Your task to perform on an android device: open app "Cash App" (install if not already installed) Image 0: 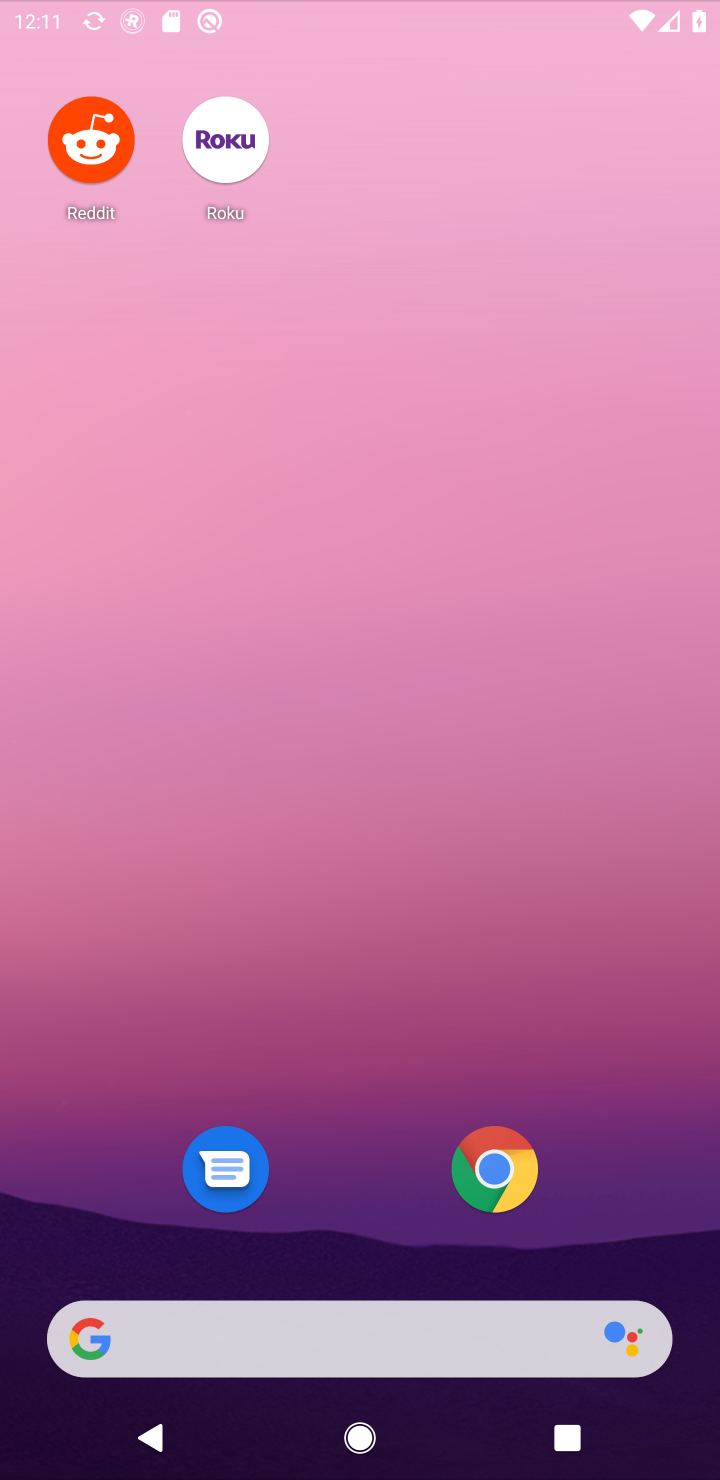
Step 0: press home button
Your task to perform on an android device: open app "Cash App" (install if not already installed) Image 1: 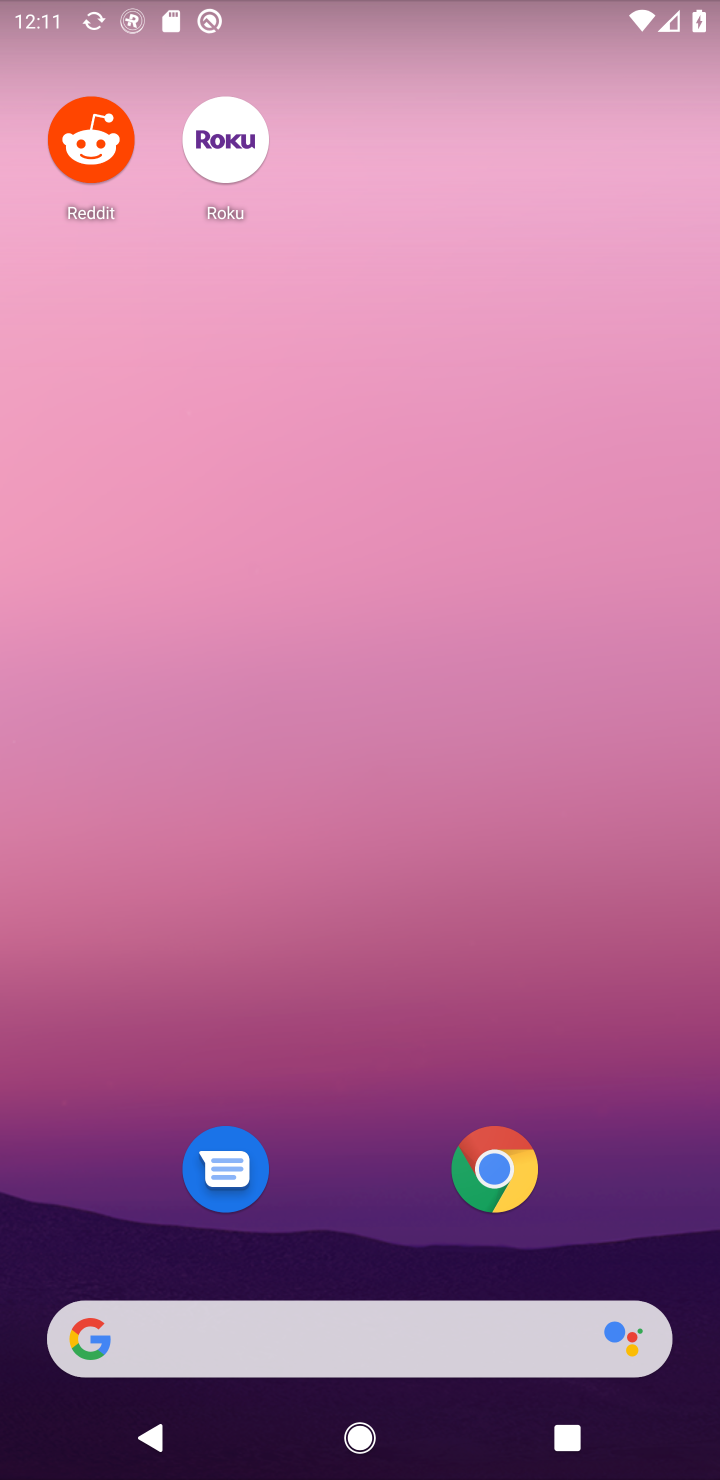
Step 1: drag from (618, 1188) to (666, 115)
Your task to perform on an android device: open app "Cash App" (install if not already installed) Image 2: 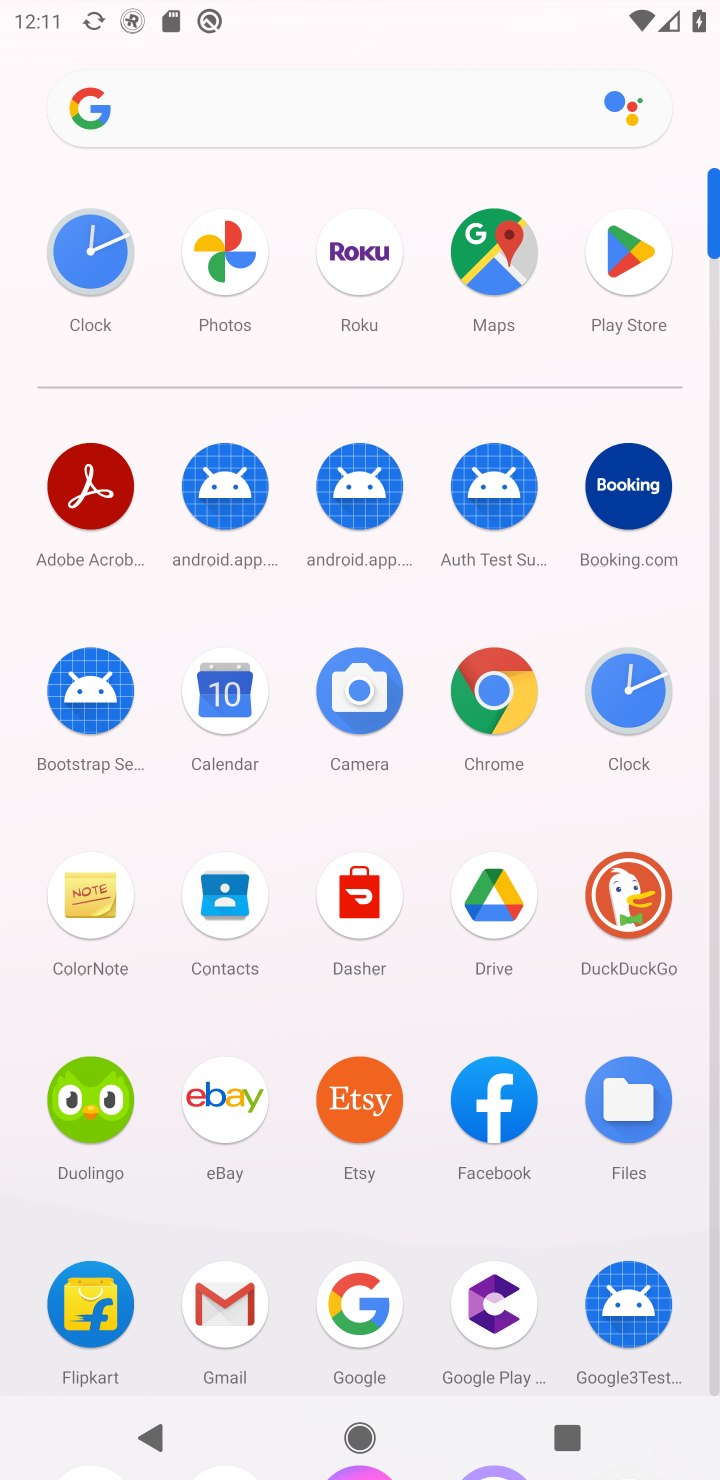
Step 2: click (625, 255)
Your task to perform on an android device: open app "Cash App" (install if not already installed) Image 3: 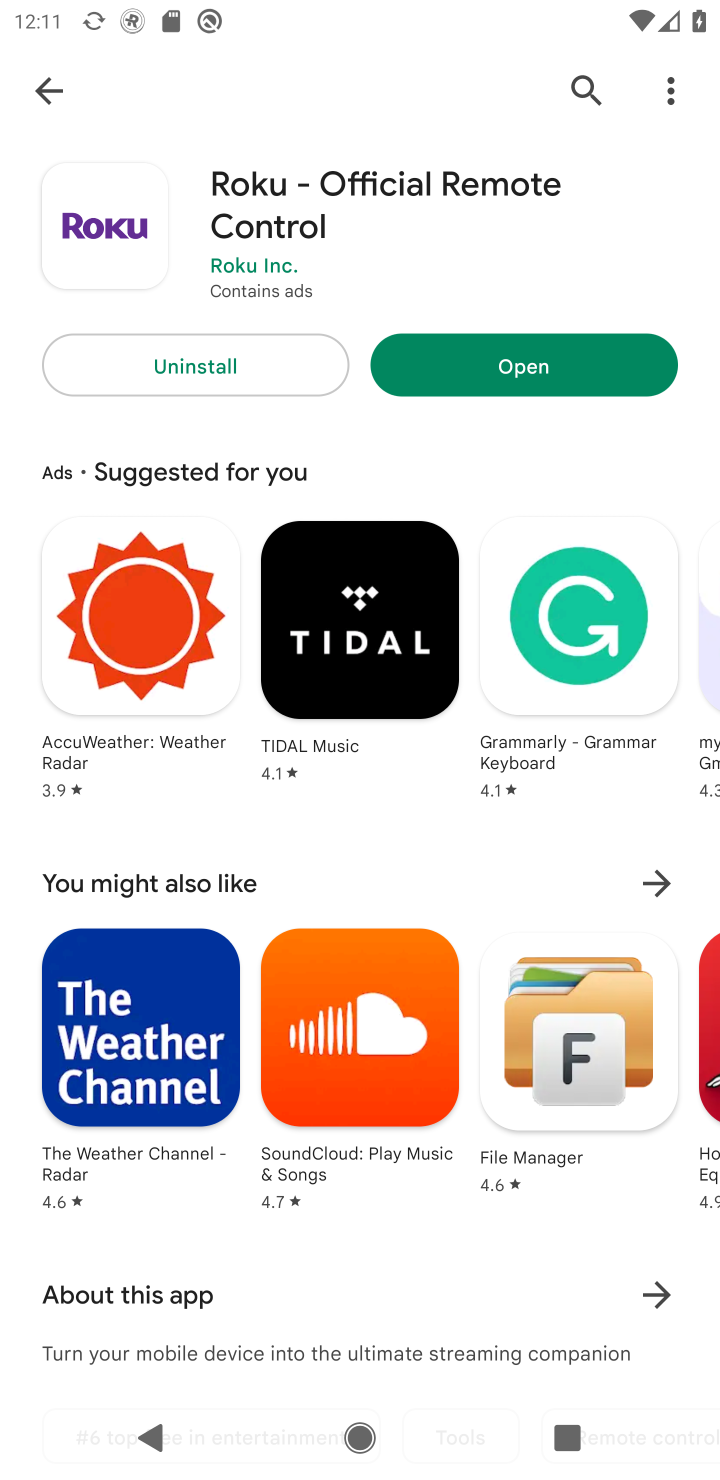
Step 3: click (582, 76)
Your task to perform on an android device: open app "Cash App" (install if not already installed) Image 4: 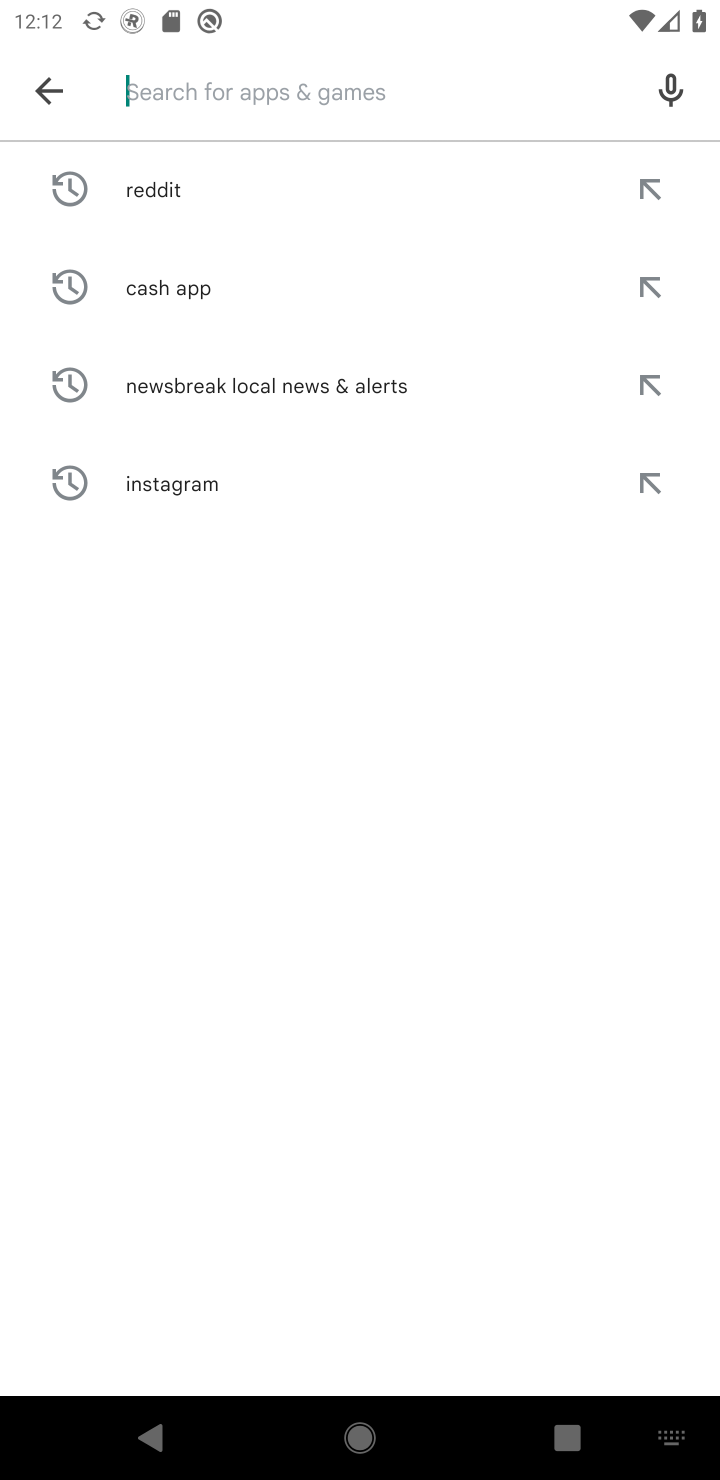
Step 4: press enter
Your task to perform on an android device: open app "Cash App" (install if not already installed) Image 5: 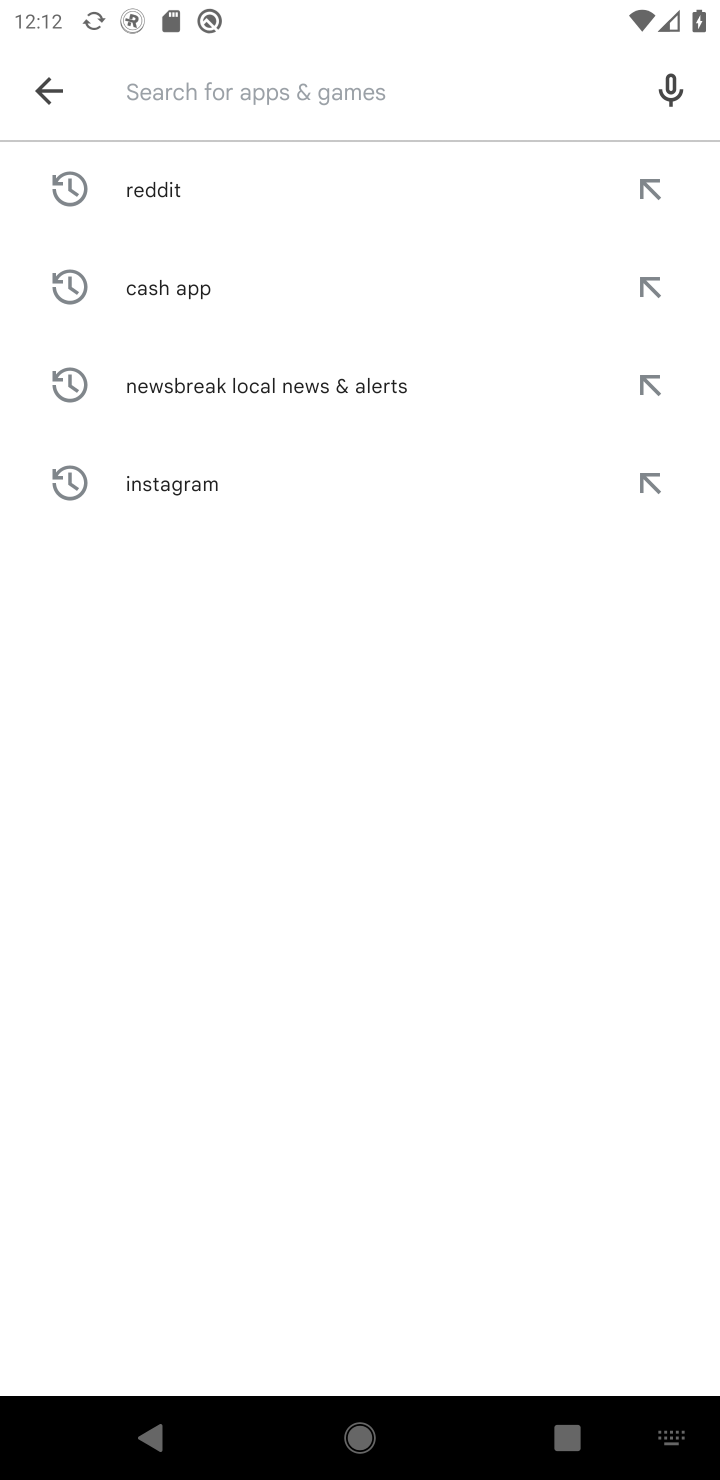
Step 5: type "cash app"
Your task to perform on an android device: open app "Cash App" (install if not already installed) Image 6: 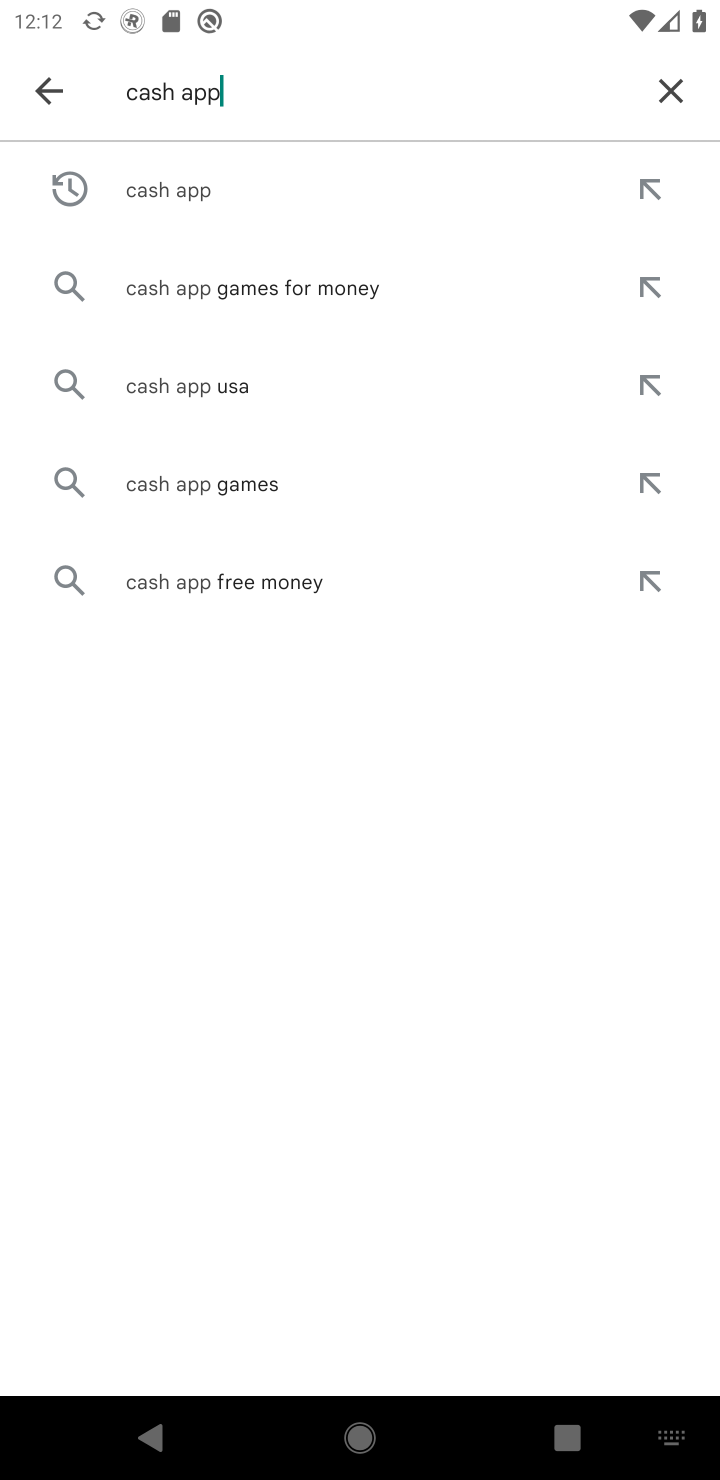
Step 6: click (188, 193)
Your task to perform on an android device: open app "Cash App" (install if not already installed) Image 7: 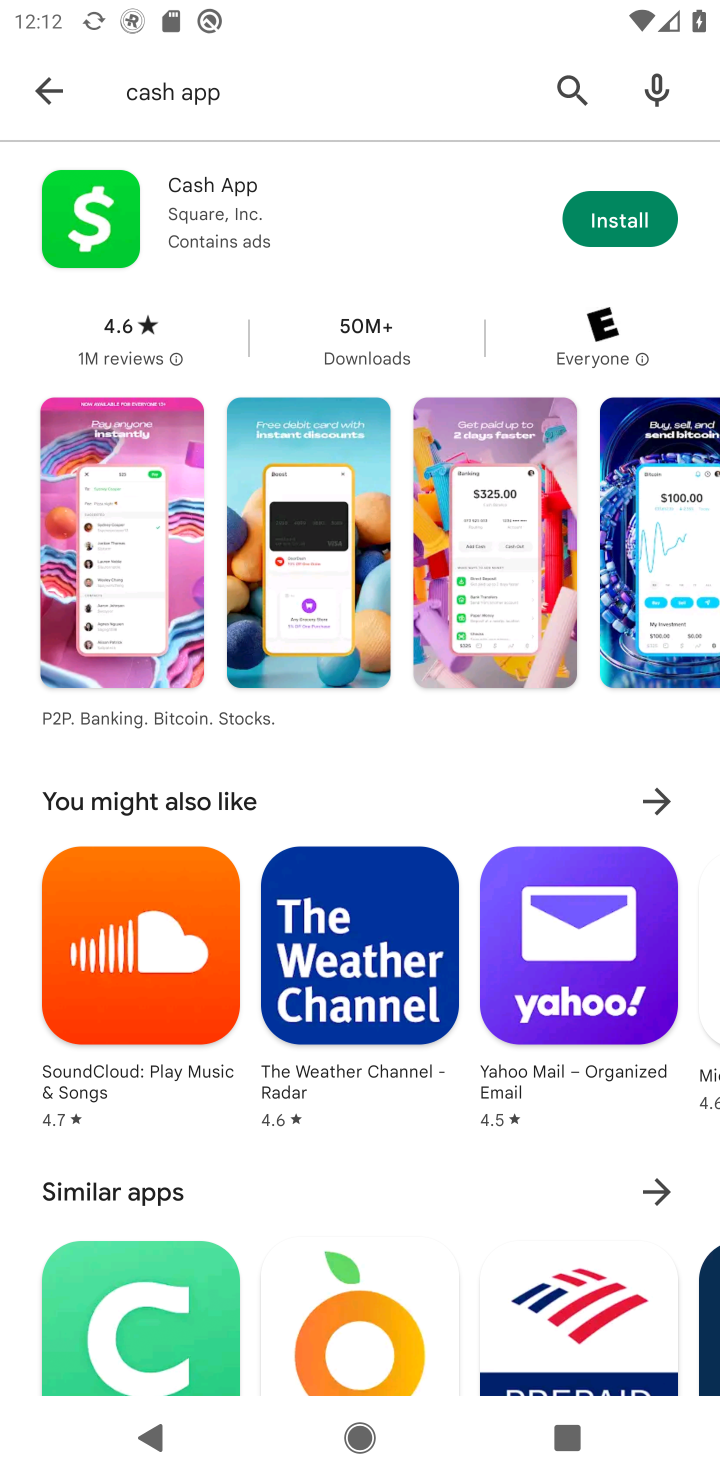
Step 7: click (626, 229)
Your task to perform on an android device: open app "Cash App" (install if not already installed) Image 8: 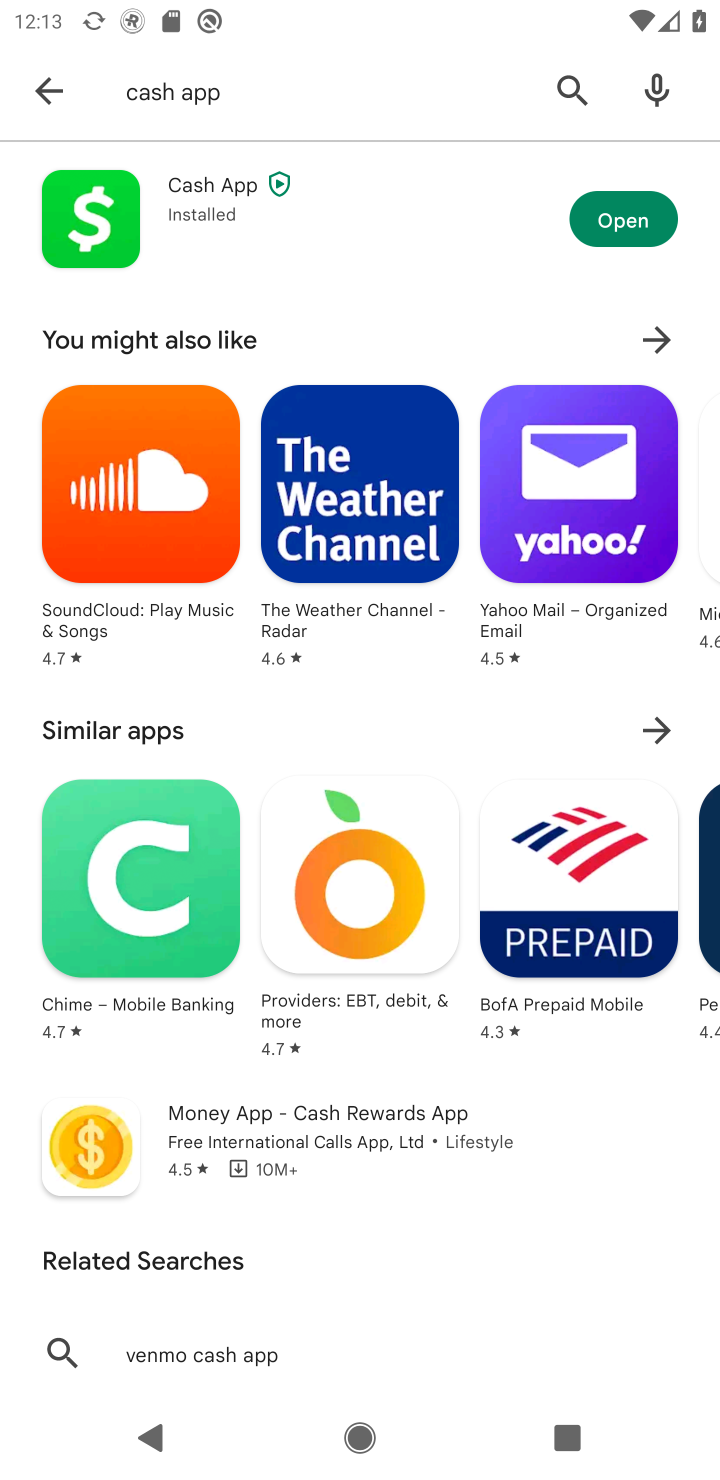
Step 8: click (623, 219)
Your task to perform on an android device: open app "Cash App" (install if not already installed) Image 9: 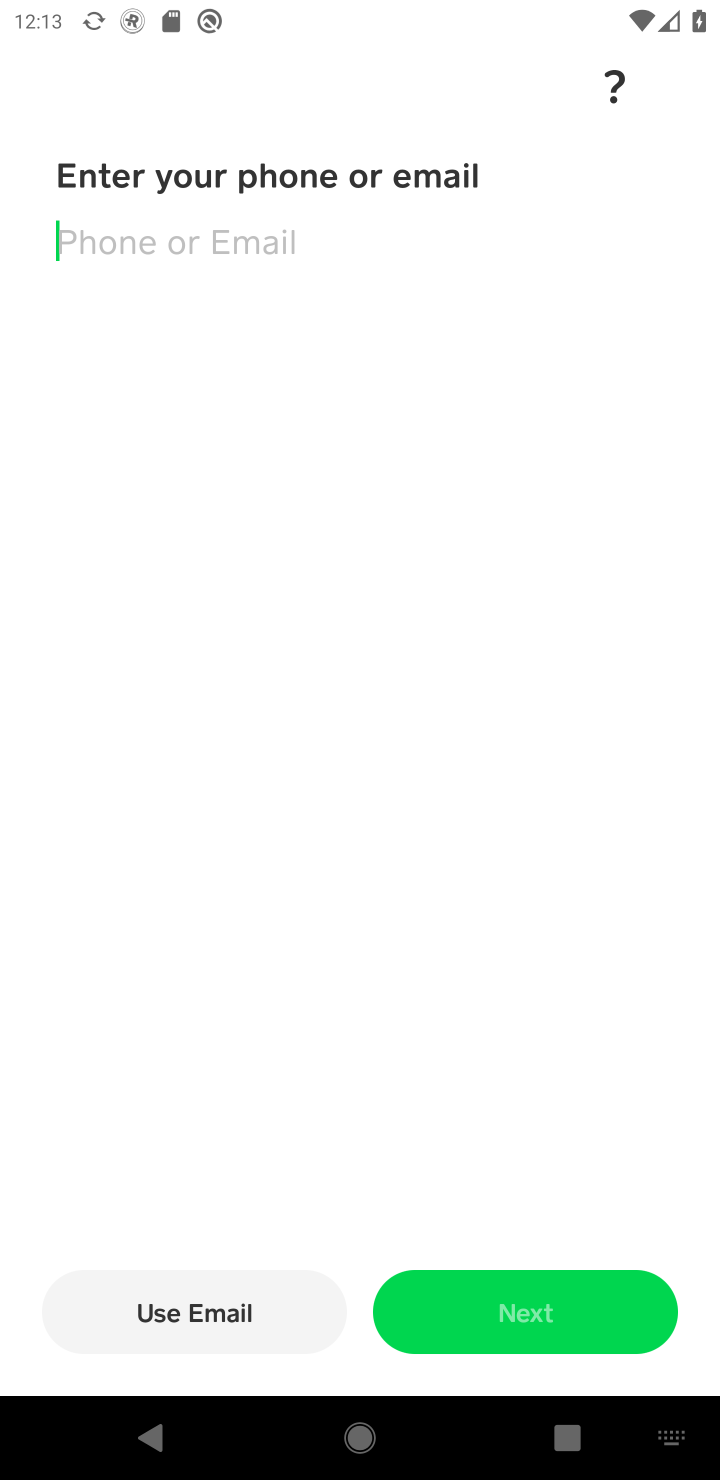
Step 9: task complete